Your task to perform on an android device: Open ESPN.com Image 0: 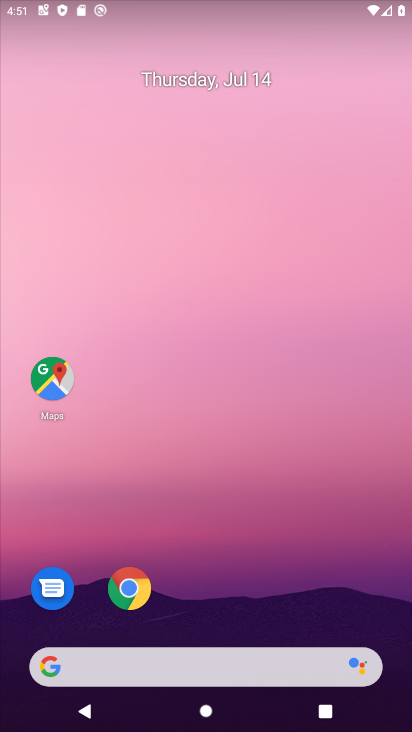
Step 0: click (134, 594)
Your task to perform on an android device: Open ESPN.com Image 1: 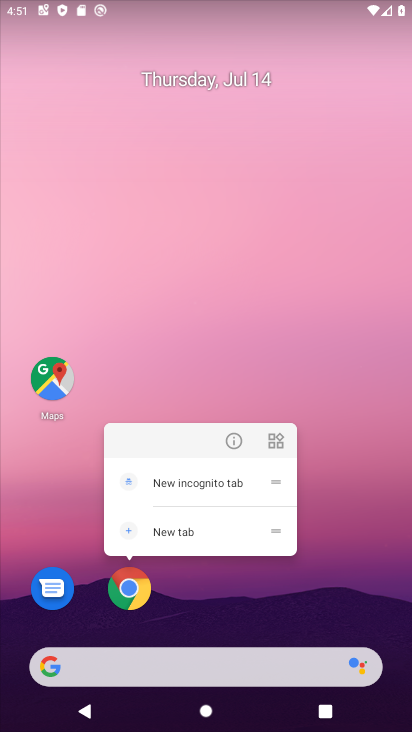
Step 1: click (131, 589)
Your task to perform on an android device: Open ESPN.com Image 2: 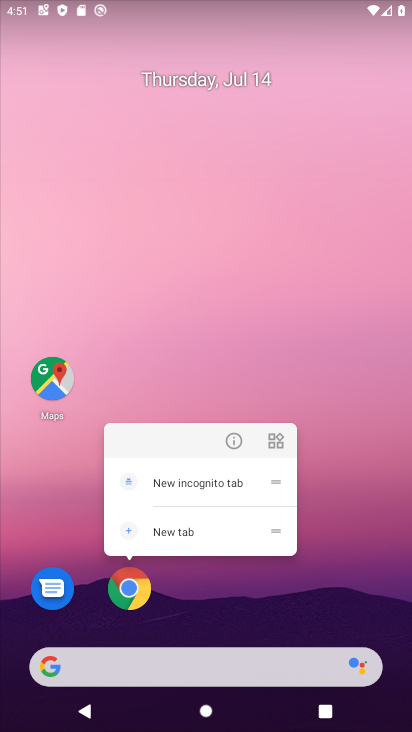
Step 2: click (131, 589)
Your task to perform on an android device: Open ESPN.com Image 3: 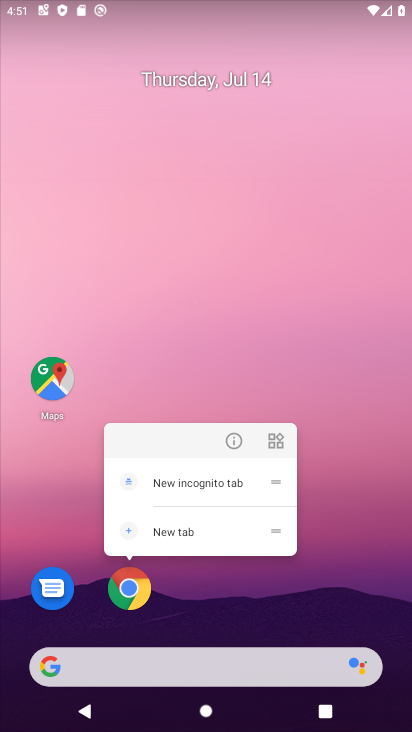
Step 3: click (121, 588)
Your task to perform on an android device: Open ESPN.com Image 4: 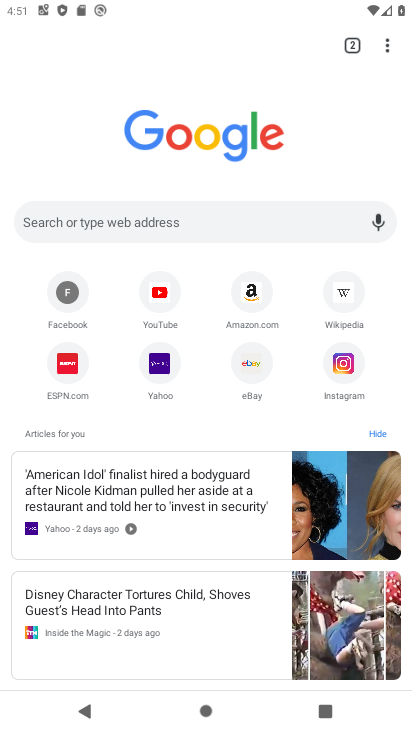
Step 4: click (69, 371)
Your task to perform on an android device: Open ESPN.com Image 5: 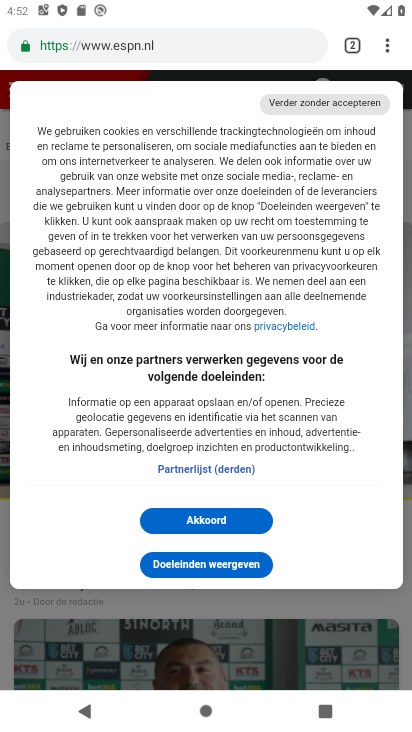
Step 5: task complete